Your task to perform on an android device: Open location settings Image 0: 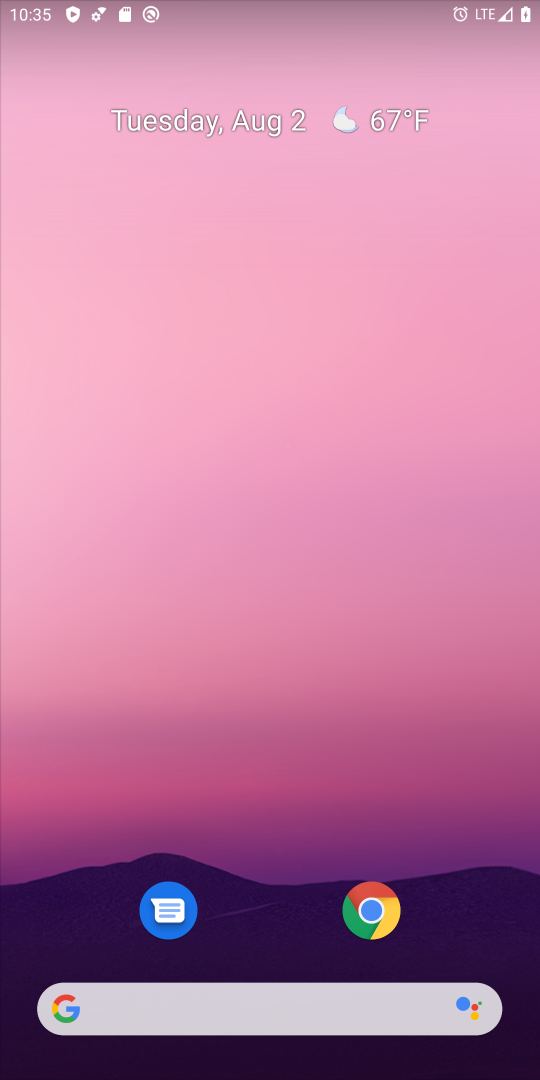
Step 0: drag from (280, 924) to (291, 320)
Your task to perform on an android device: Open location settings Image 1: 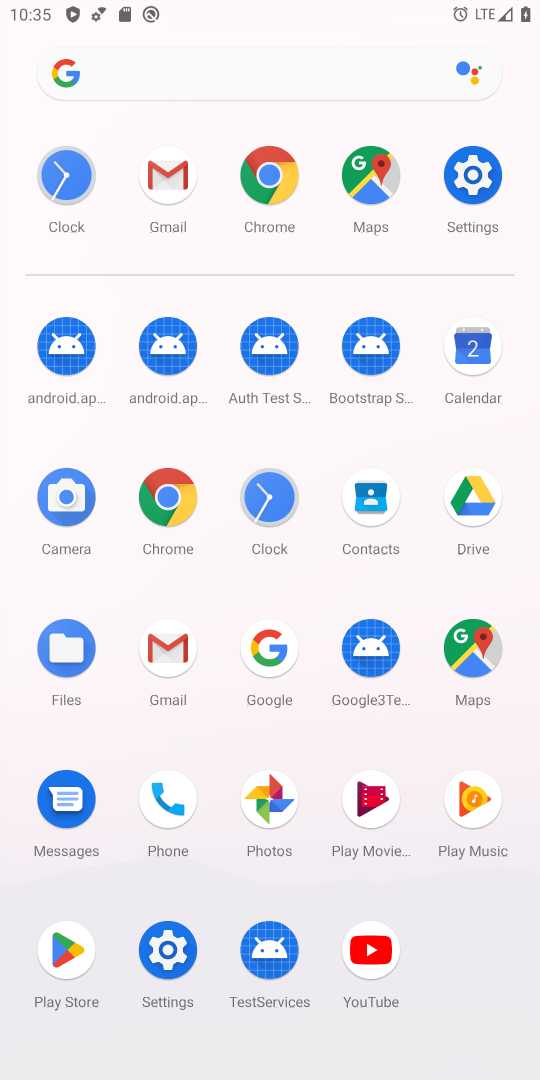
Step 1: click (465, 177)
Your task to perform on an android device: Open location settings Image 2: 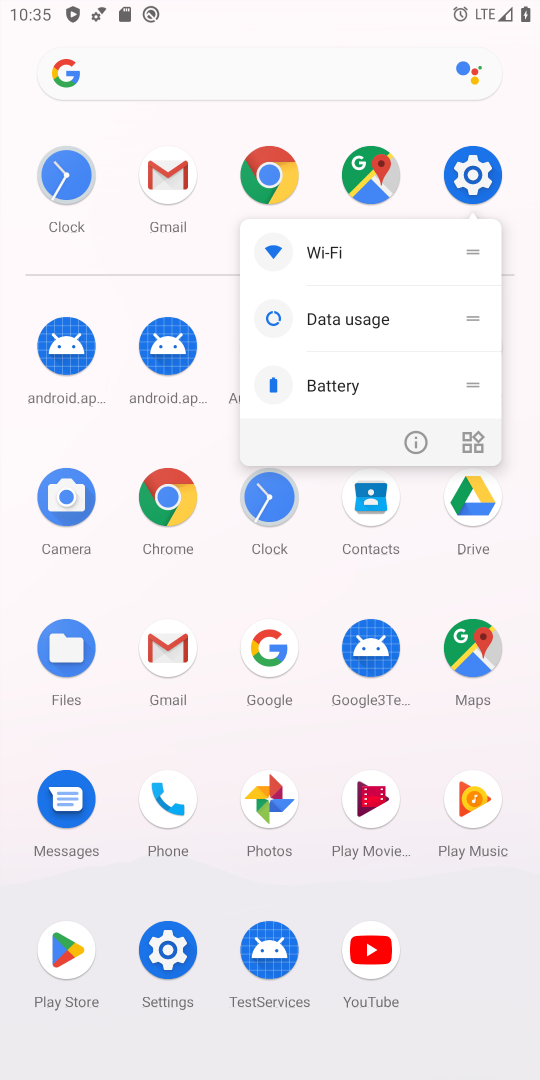
Step 2: click (473, 184)
Your task to perform on an android device: Open location settings Image 3: 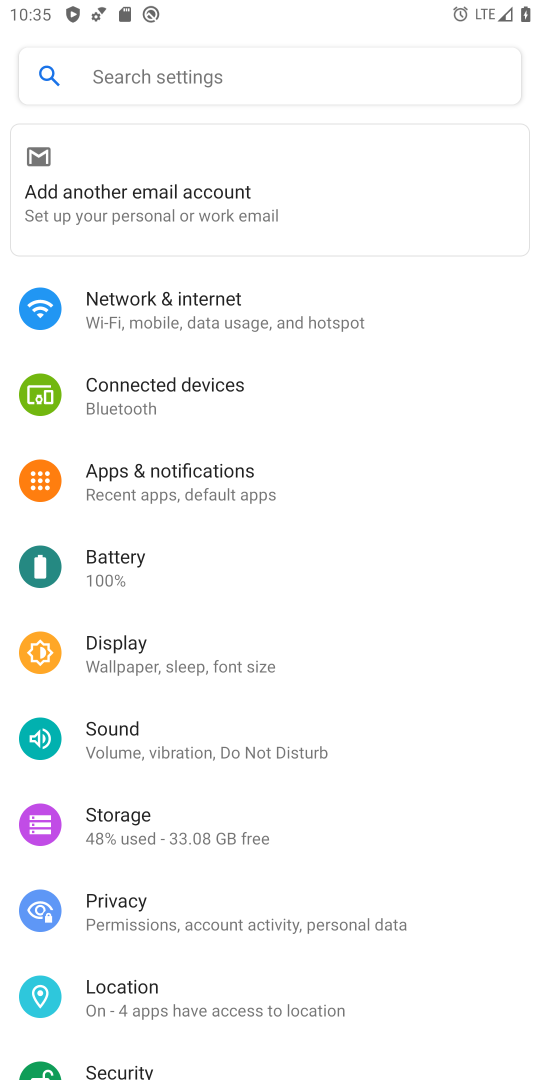
Step 3: click (159, 999)
Your task to perform on an android device: Open location settings Image 4: 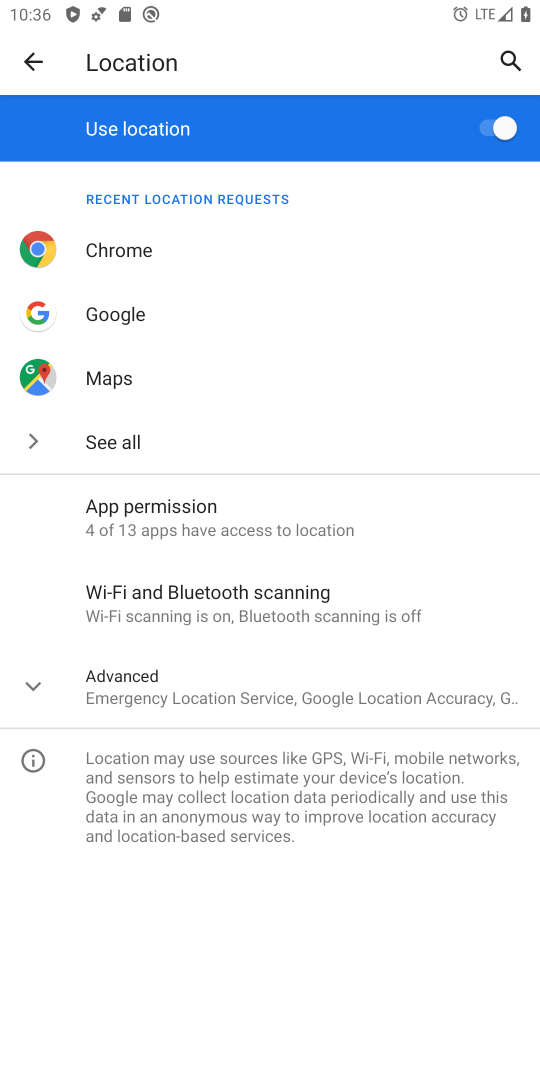
Step 4: task complete